Your task to perform on an android device: Open Google Chrome and open the bookmarks view Image 0: 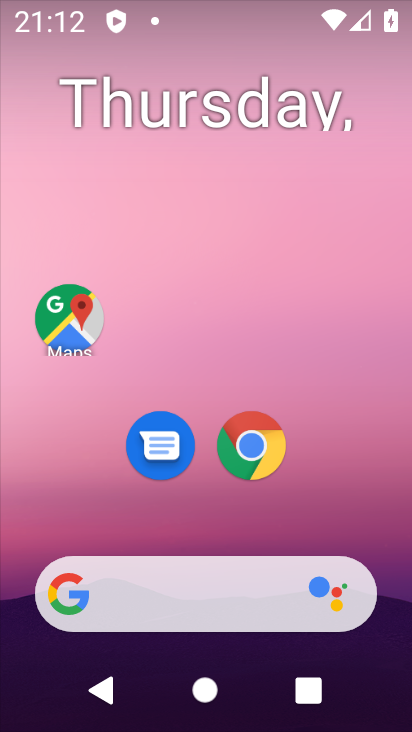
Step 0: press home button
Your task to perform on an android device: Open Google Chrome and open the bookmarks view Image 1: 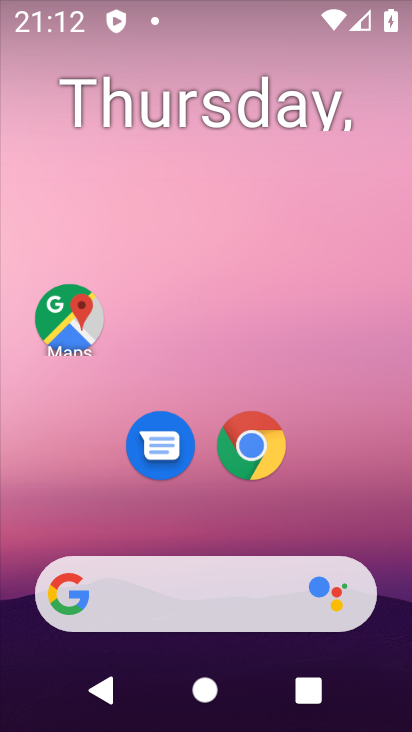
Step 1: drag from (23, 543) to (245, 97)
Your task to perform on an android device: Open Google Chrome and open the bookmarks view Image 2: 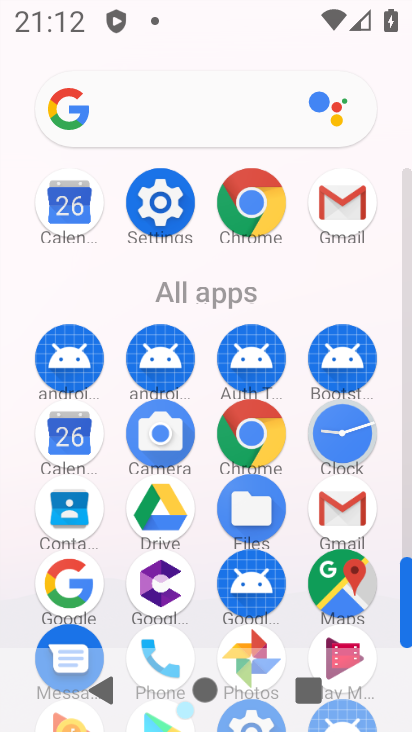
Step 2: click (244, 206)
Your task to perform on an android device: Open Google Chrome and open the bookmarks view Image 3: 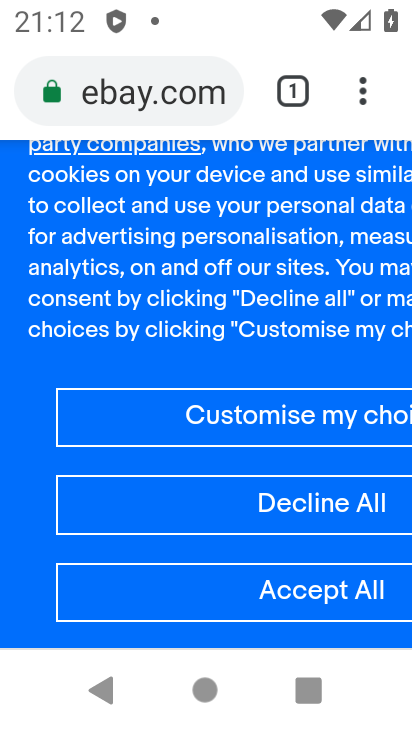
Step 3: click (358, 86)
Your task to perform on an android device: Open Google Chrome and open the bookmarks view Image 4: 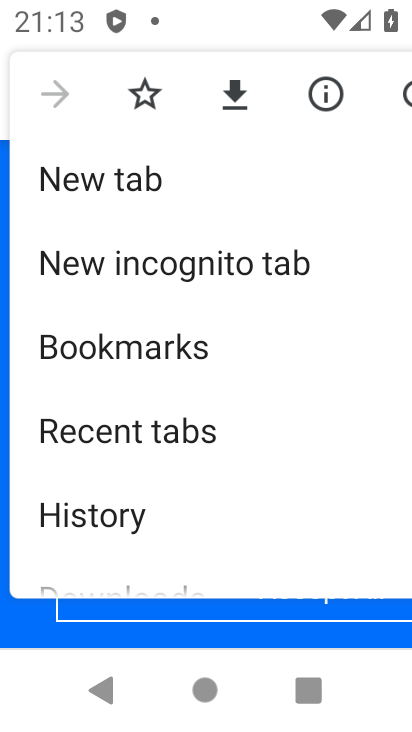
Step 4: click (188, 345)
Your task to perform on an android device: Open Google Chrome and open the bookmarks view Image 5: 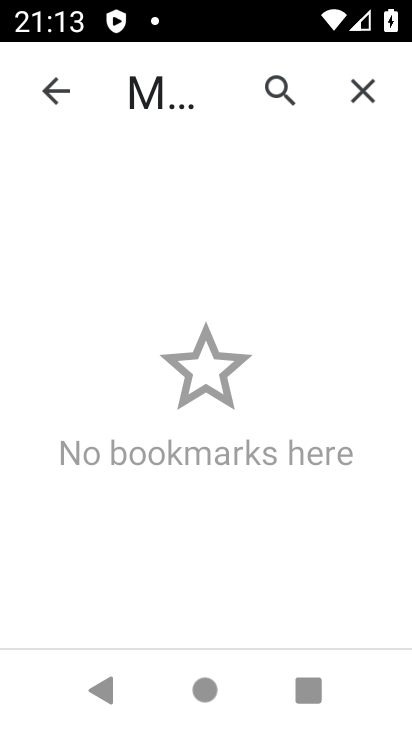
Step 5: task complete